Your task to perform on an android device: Open Yahoo.com Image 0: 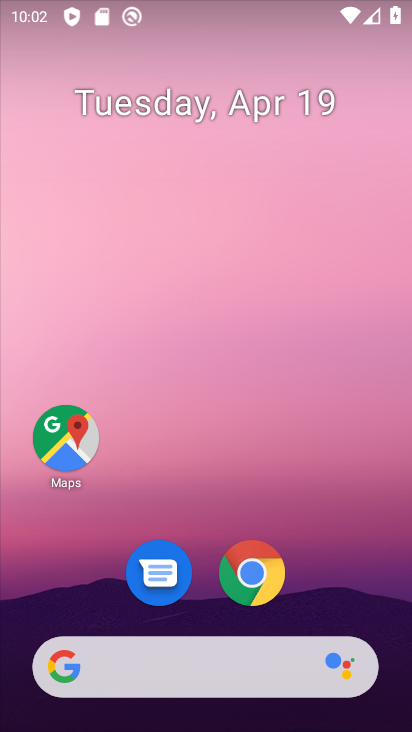
Step 0: drag from (328, 597) to (311, 74)
Your task to perform on an android device: Open Yahoo.com Image 1: 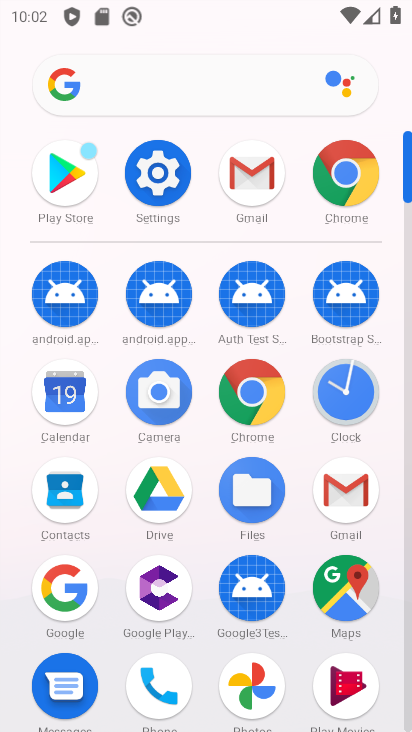
Step 1: click (356, 185)
Your task to perform on an android device: Open Yahoo.com Image 2: 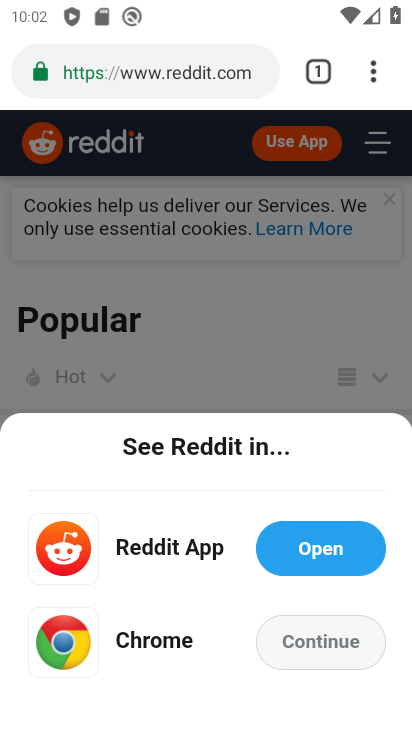
Step 2: click (244, 80)
Your task to perform on an android device: Open Yahoo.com Image 3: 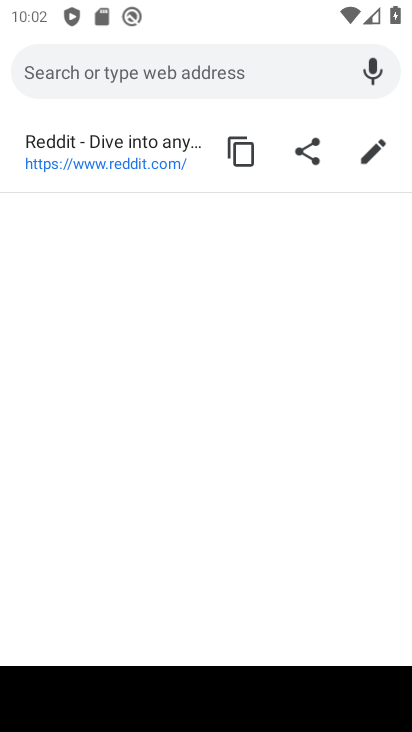
Step 3: type "yahoo.com"
Your task to perform on an android device: Open Yahoo.com Image 4: 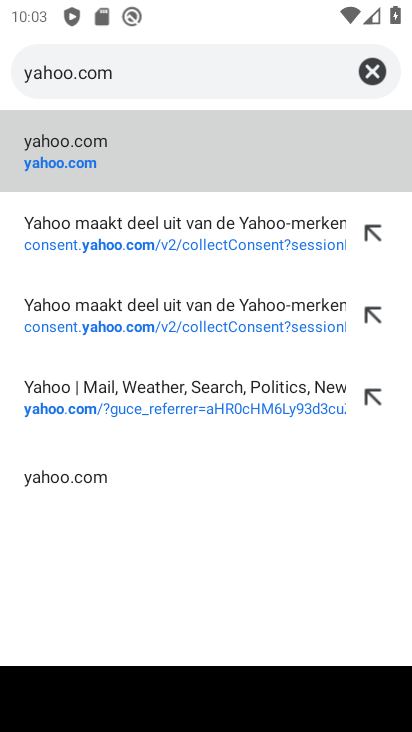
Step 4: click (81, 155)
Your task to perform on an android device: Open Yahoo.com Image 5: 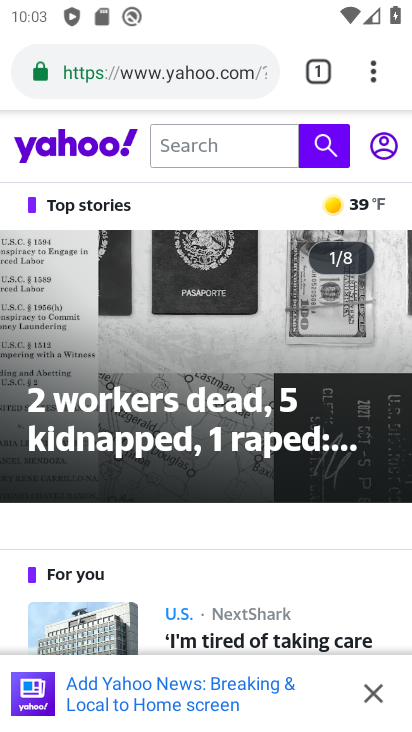
Step 5: task complete